Your task to perform on an android device: Go to battery settings Image 0: 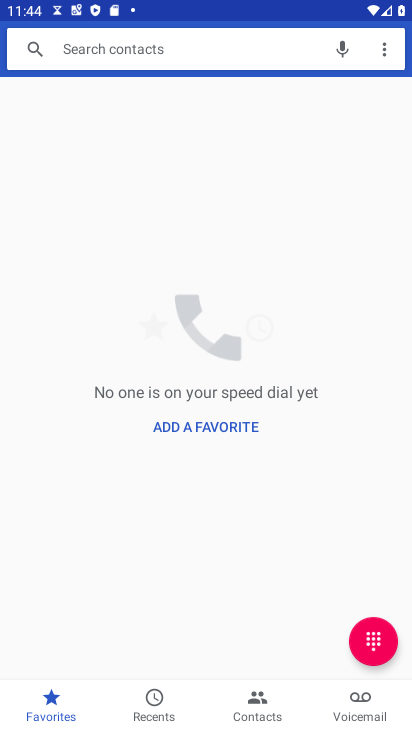
Step 0: press home button
Your task to perform on an android device: Go to battery settings Image 1: 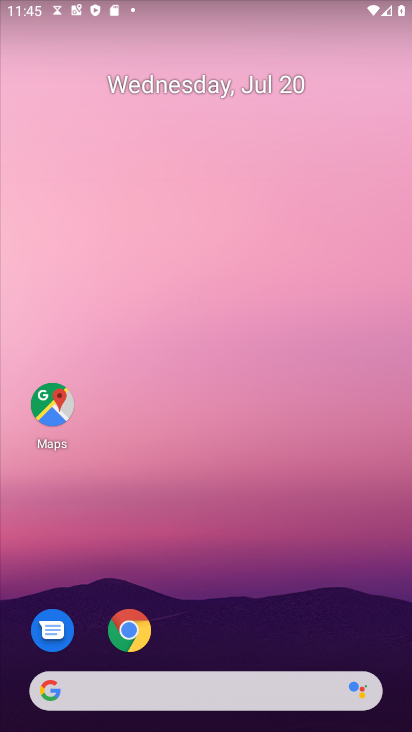
Step 1: drag from (18, 697) to (162, 200)
Your task to perform on an android device: Go to battery settings Image 2: 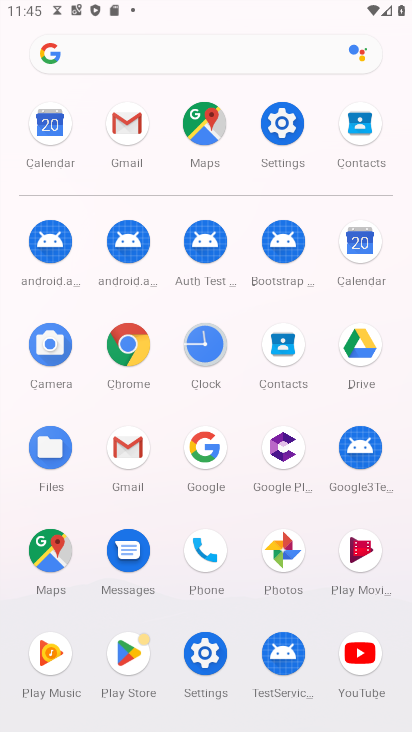
Step 2: click (218, 653)
Your task to perform on an android device: Go to battery settings Image 3: 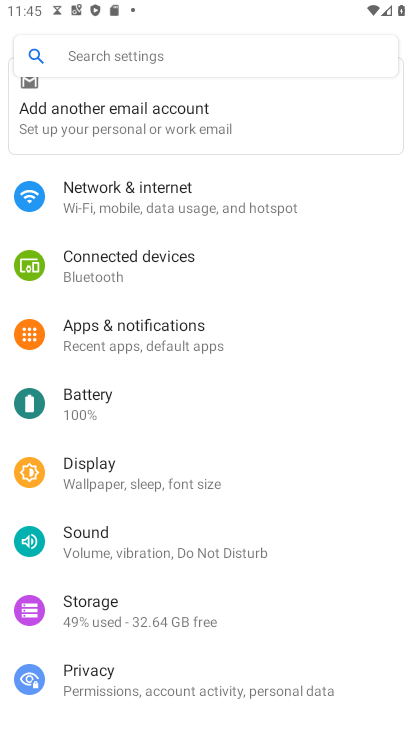
Step 3: click (110, 390)
Your task to perform on an android device: Go to battery settings Image 4: 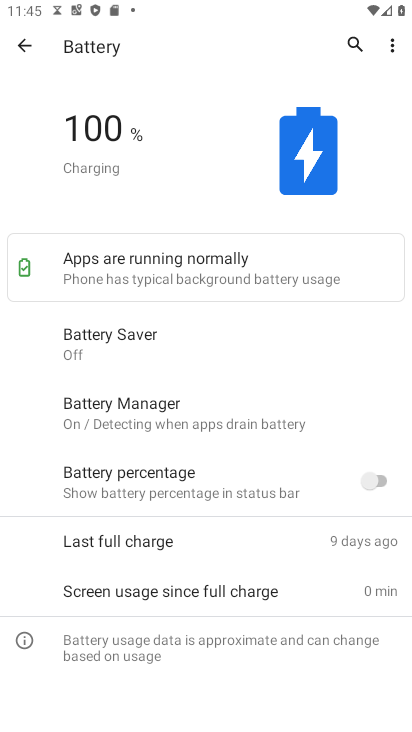
Step 4: task complete